Your task to perform on an android device: Go to eBay Image 0: 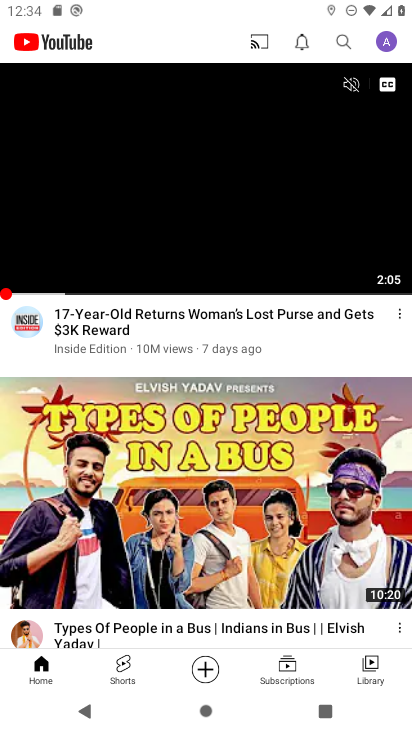
Step 0: press home button
Your task to perform on an android device: Go to eBay Image 1: 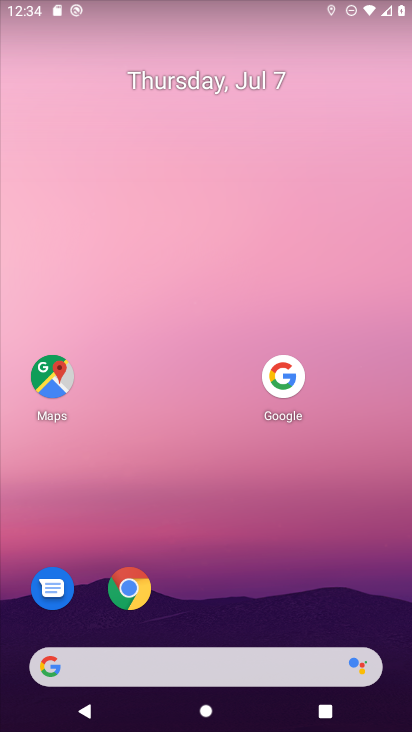
Step 1: click (134, 590)
Your task to perform on an android device: Go to eBay Image 2: 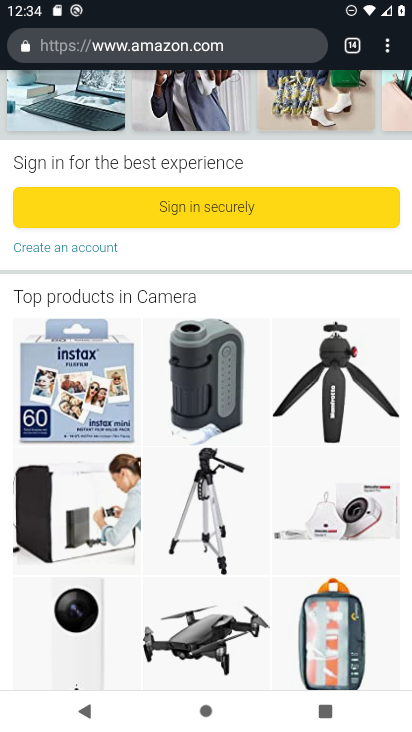
Step 2: drag from (385, 47) to (309, 89)
Your task to perform on an android device: Go to eBay Image 3: 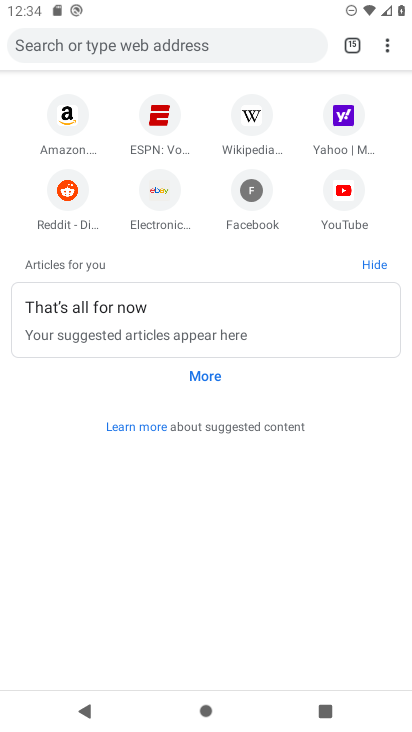
Step 3: click (158, 187)
Your task to perform on an android device: Go to eBay Image 4: 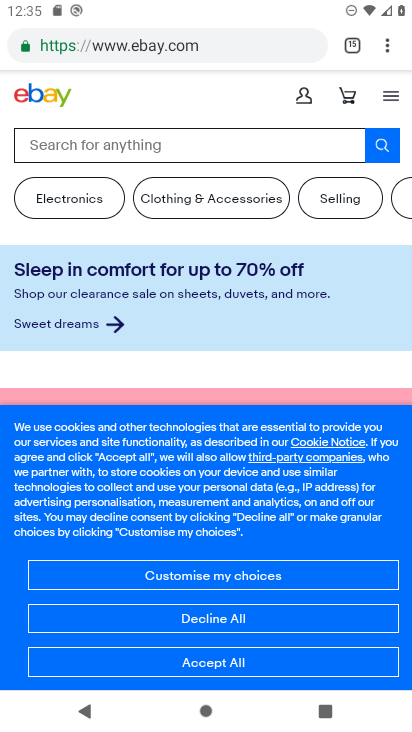
Step 4: task complete